Your task to perform on an android device: toggle notification dots Image 0: 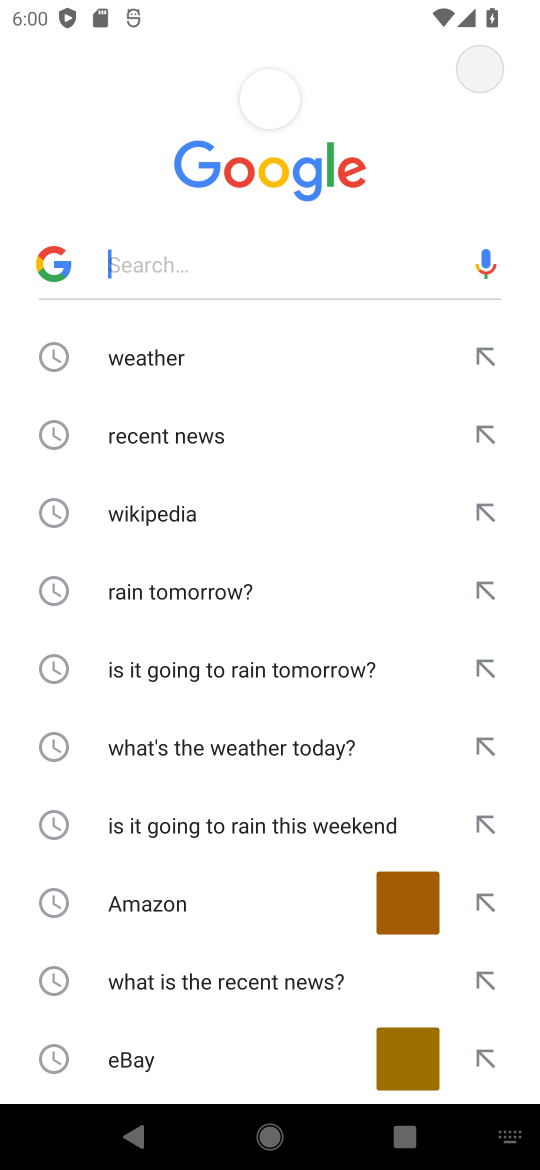
Step 0: press home button
Your task to perform on an android device: toggle notification dots Image 1: 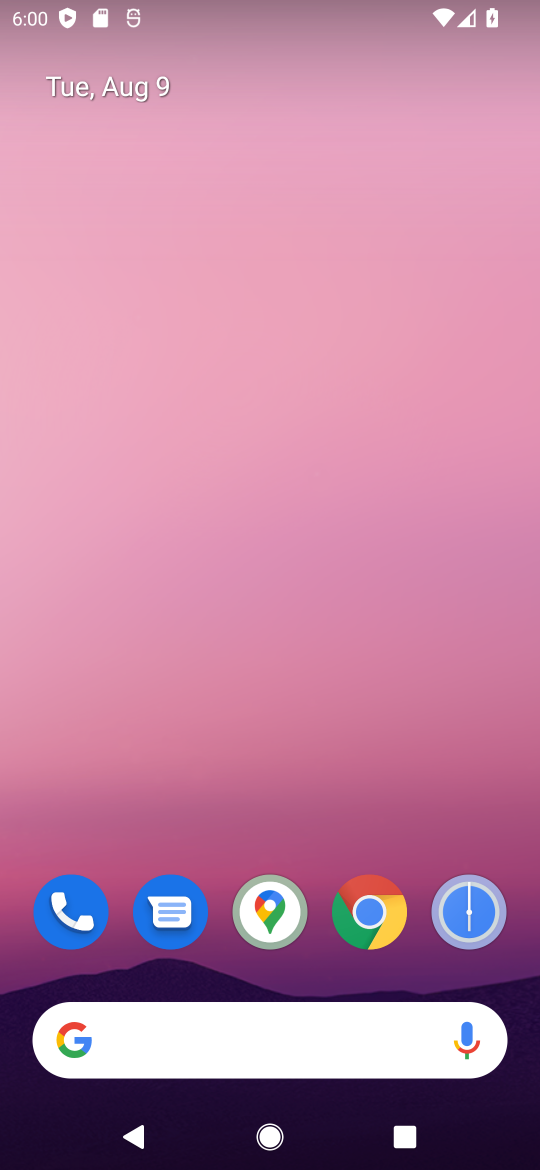
Step 1: drag from (259, 944) to (162, 348)
Your task to perform on an android device: toggle notification dots Image 2: 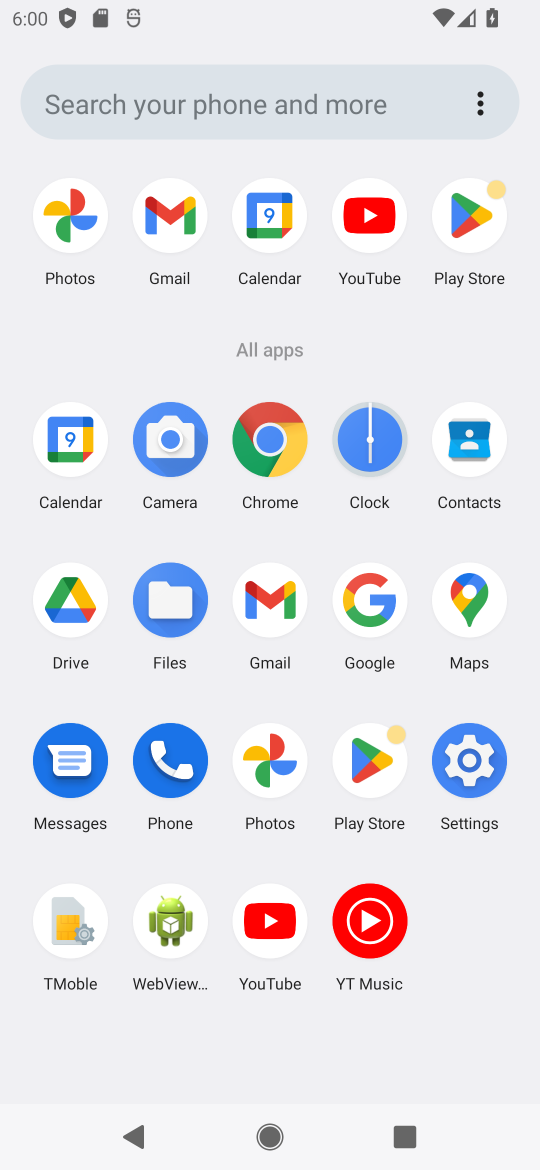
Step 2: click (446, 767)
Your task to perform on an android device: toggle notification dots Image 3: 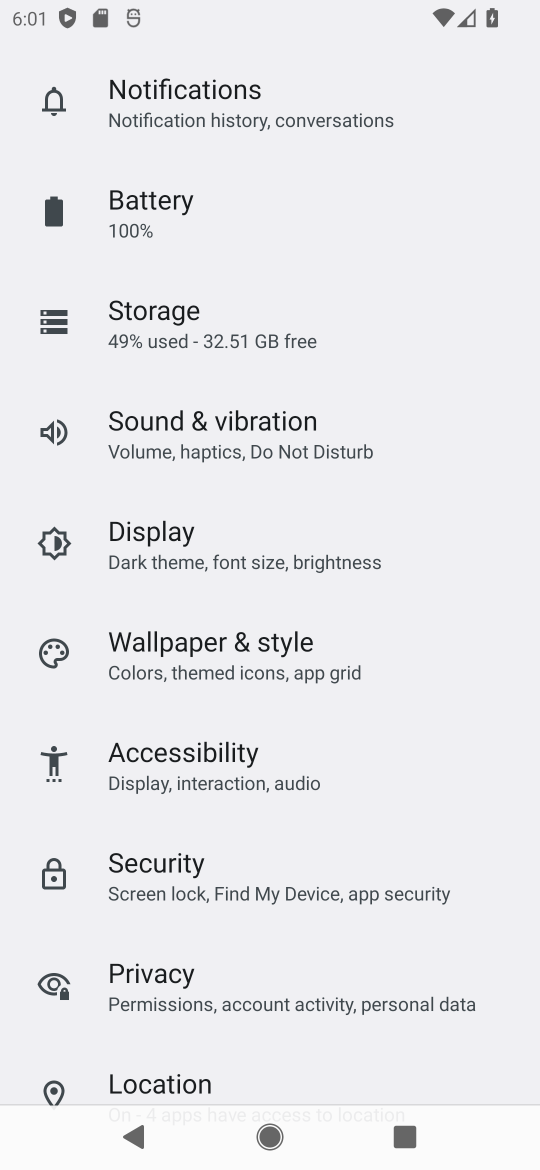
Step 3: click (173, 93)
Your task to perform on an android device: toggle notification dots Image 4: 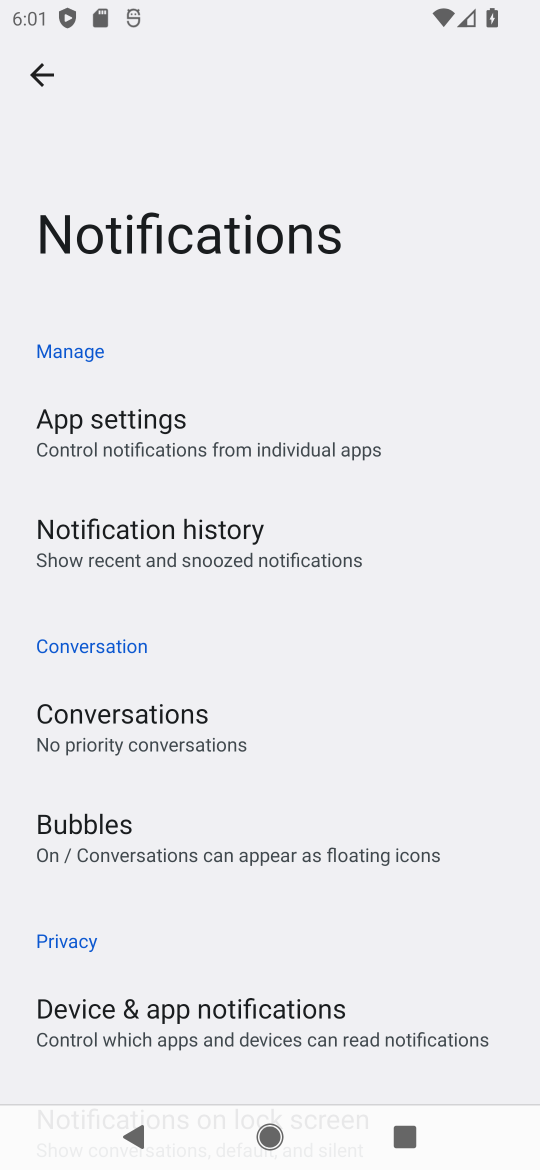
Step 4: drag from (299, 960) to (311, 172)
Your task to perform on an android device: toggle notification dots Image 5: 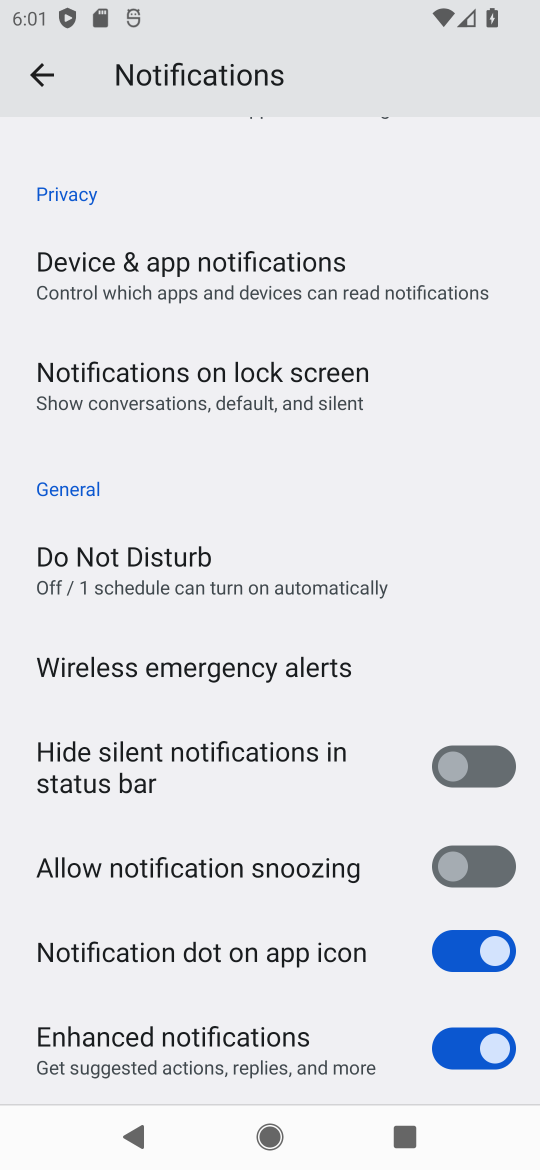
Step 5: click (491, 959)
Your task to perform on an android device: toggle notification dots Image 6: 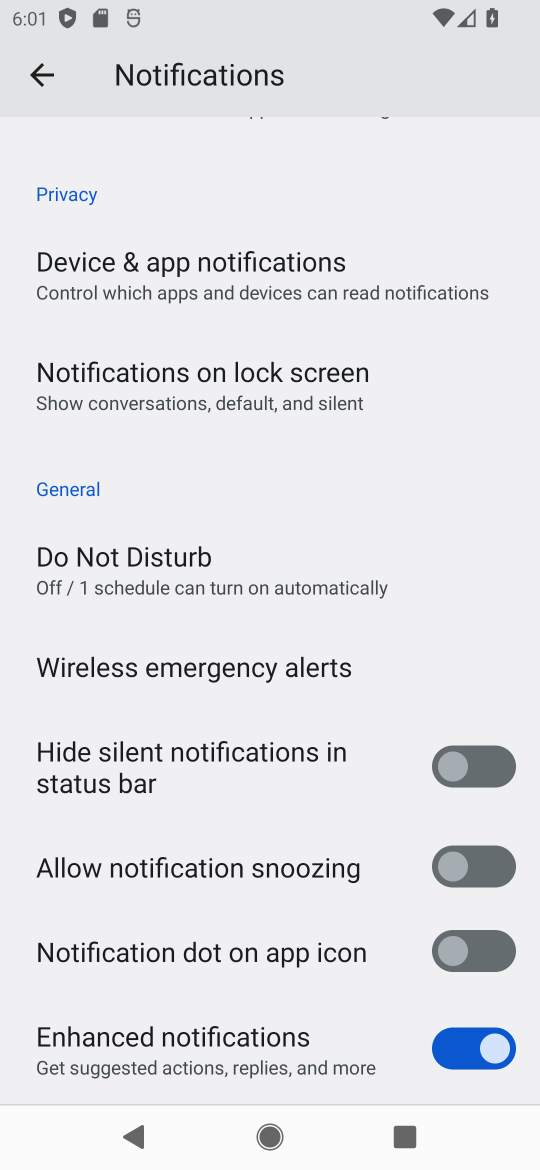
Step 6: task complete